Your task to perform on an android device: see creations saved in the google photos Image 0: 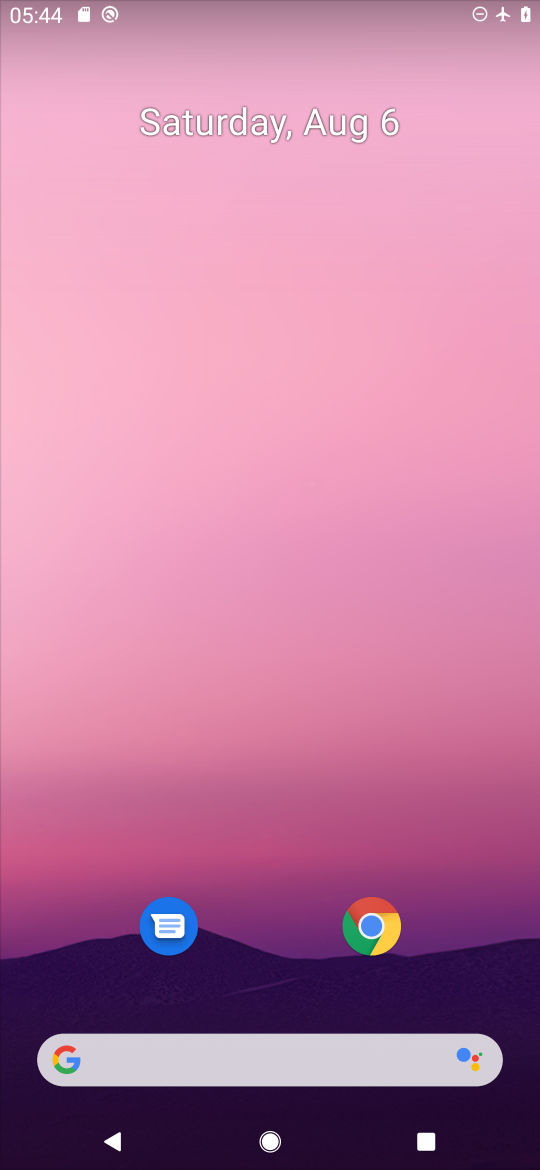
Step 0: drag from (259, 965) to (256, 296)
Your task to perform on an android device: see creations saved in the google photos Image 1: 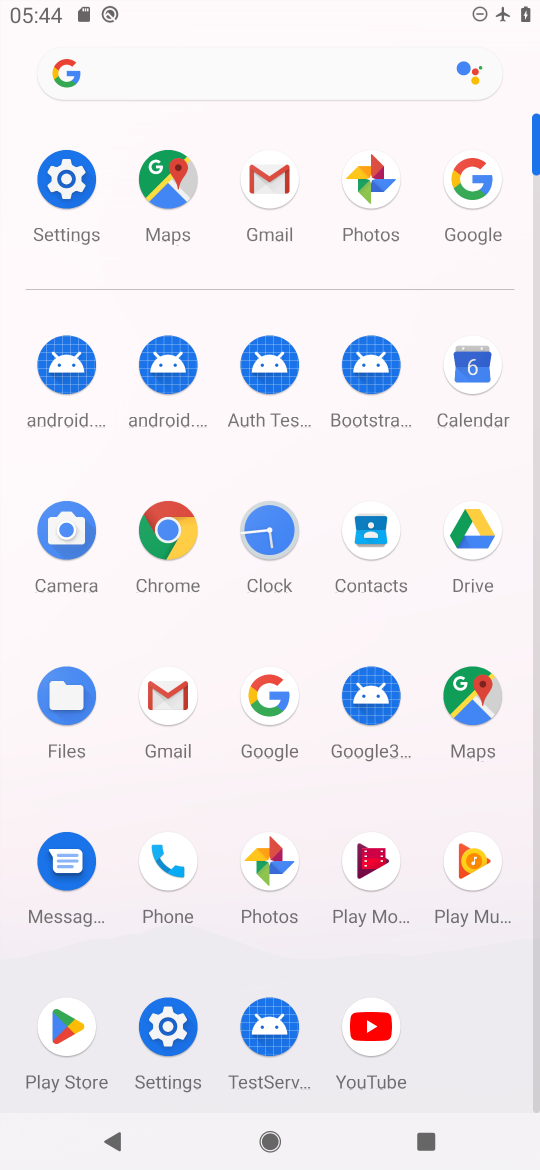
Step 1: click (367, 207)
Your task to perform on an android device: see creations saved in the google photos Image 2: 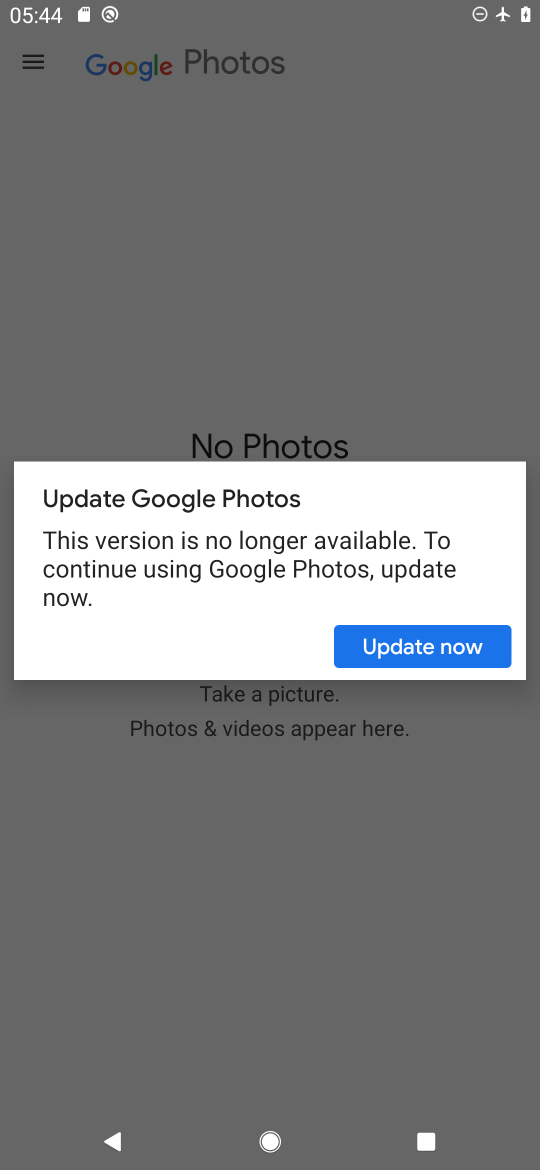
Step 2: task complete